Your task to perform on an android device: Who is the president of the United States? Image 0: 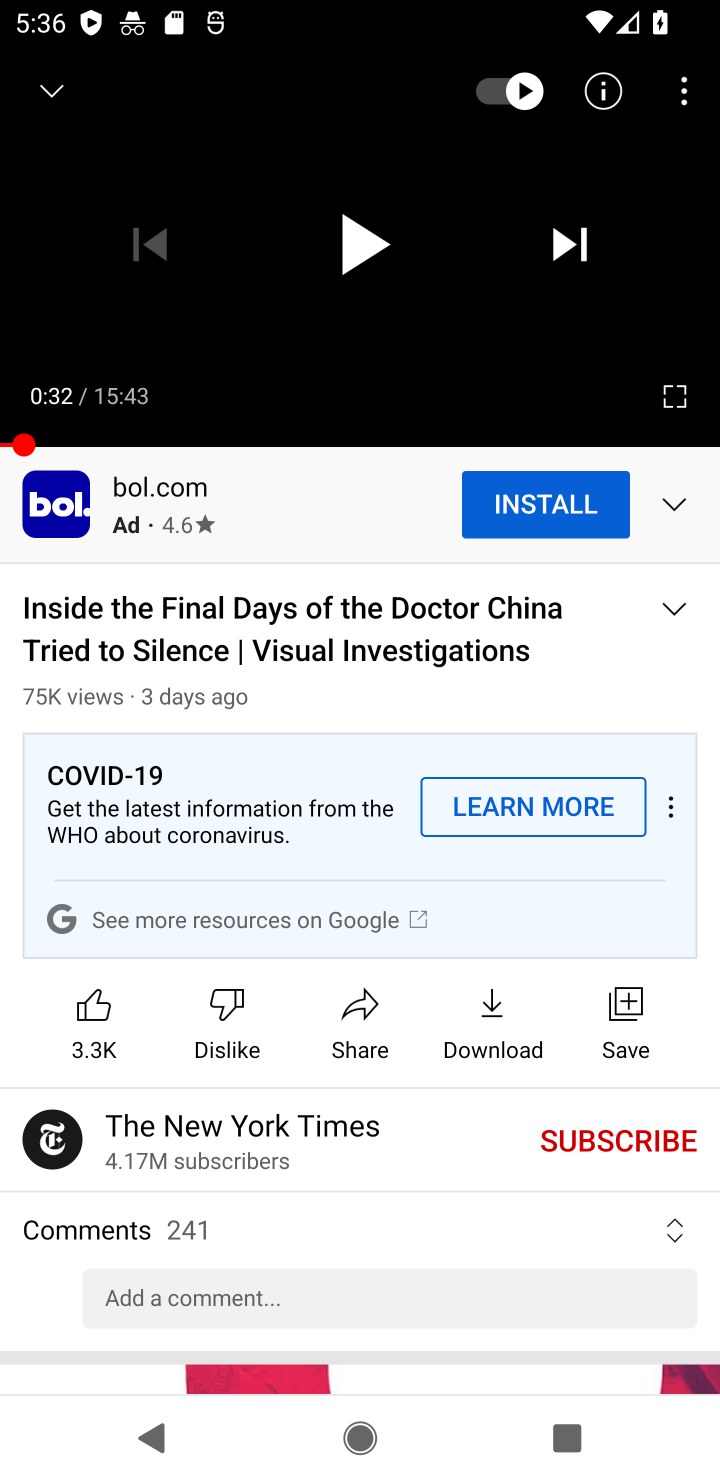
Step 0: press home button
Your task to perform on an android device: Who is the president of the United States? Image 1: 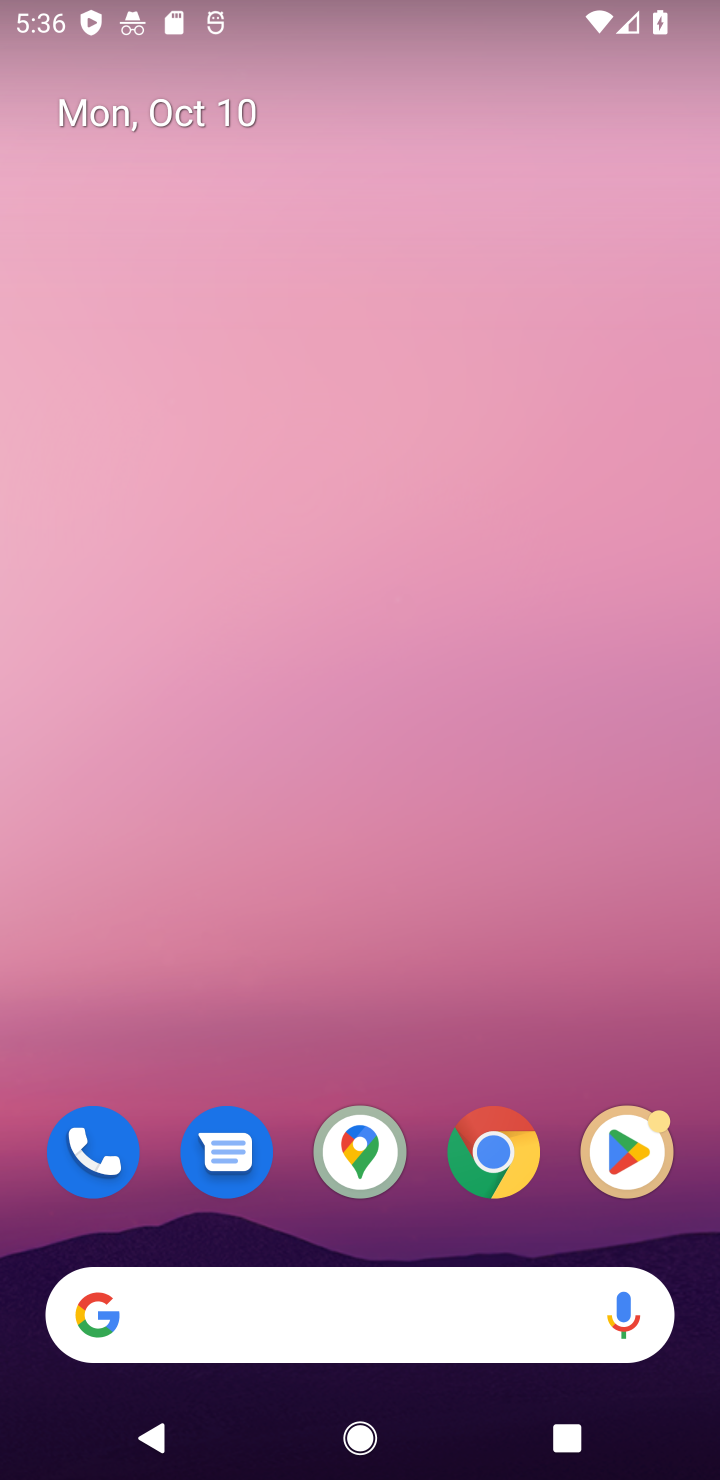
Step 1: click (496, 1146)
Your task to perform on an android device: Who is the president of the United States? Image 2: 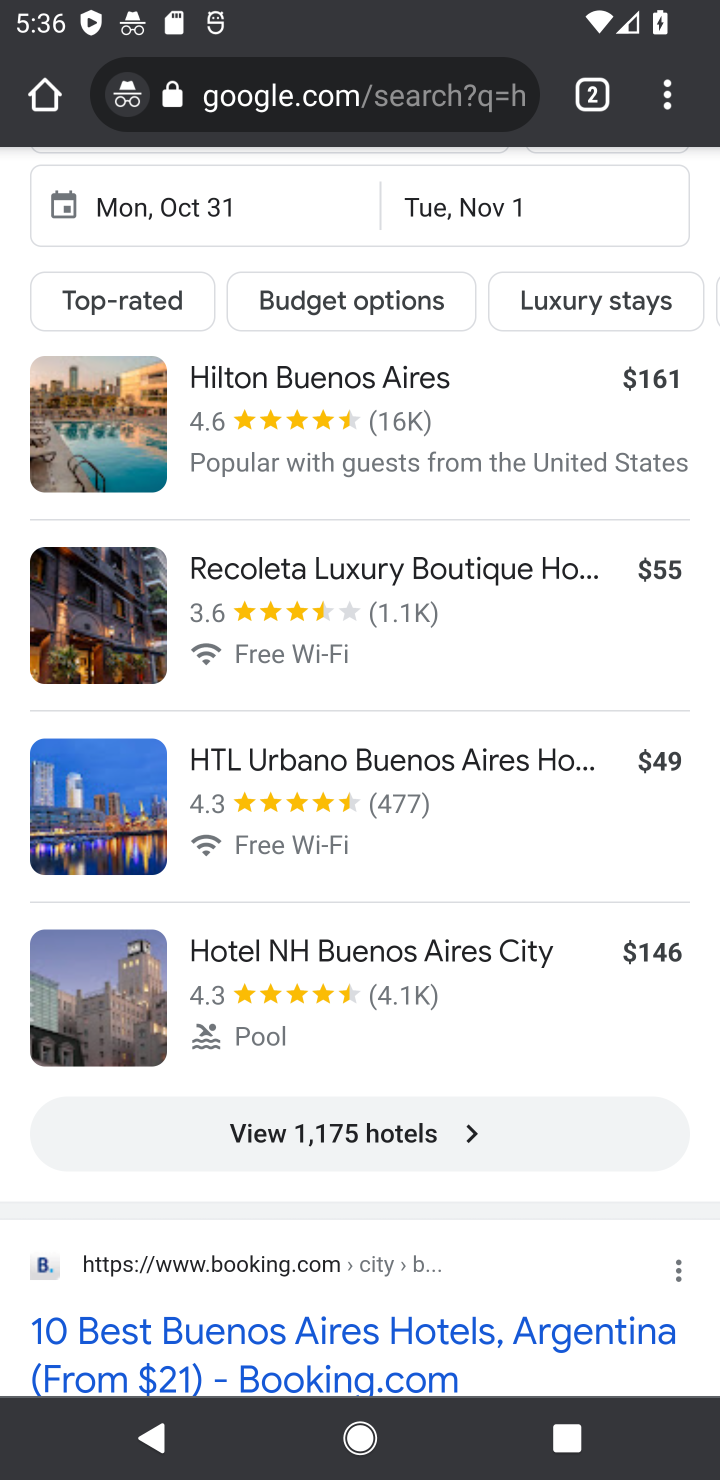
Step 2: click (390, 111)
Your task to perform on an android device: Who is the president of the United States? Image 3: 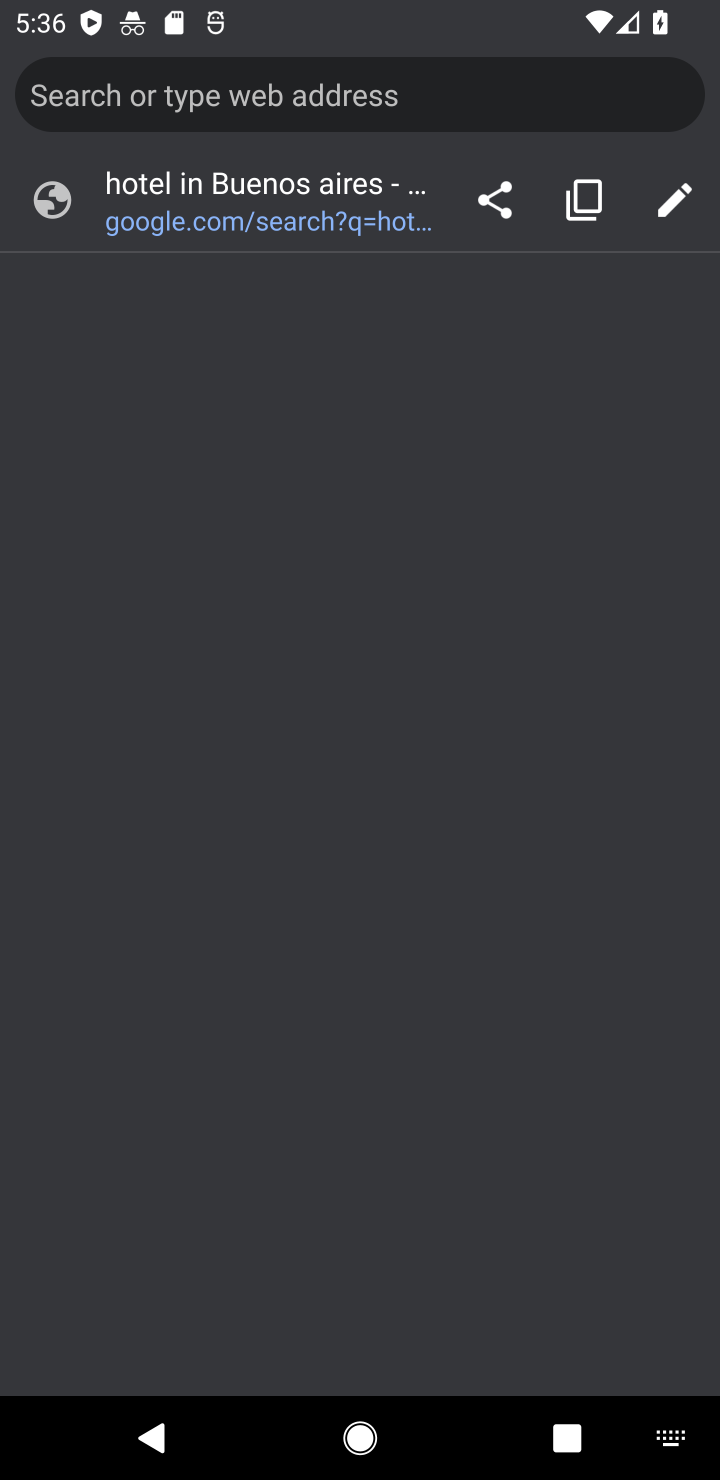
Step 3: type "Who is the president of the United States?"
Your task to perform on an android device: Who is the president of the United States? Image 4: 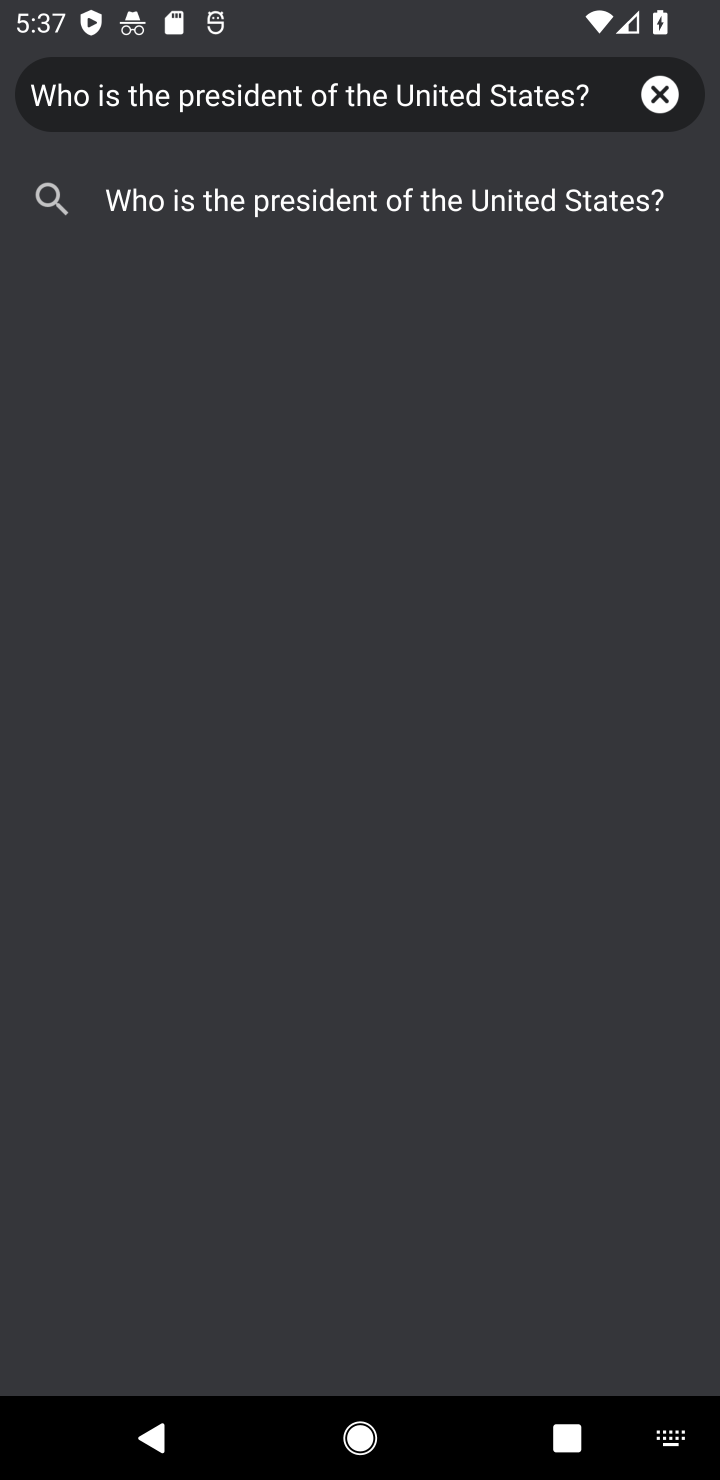
Step 4: click (407, 208)
Your task to perform on an android device: Who is the president of the United States? Image 5: 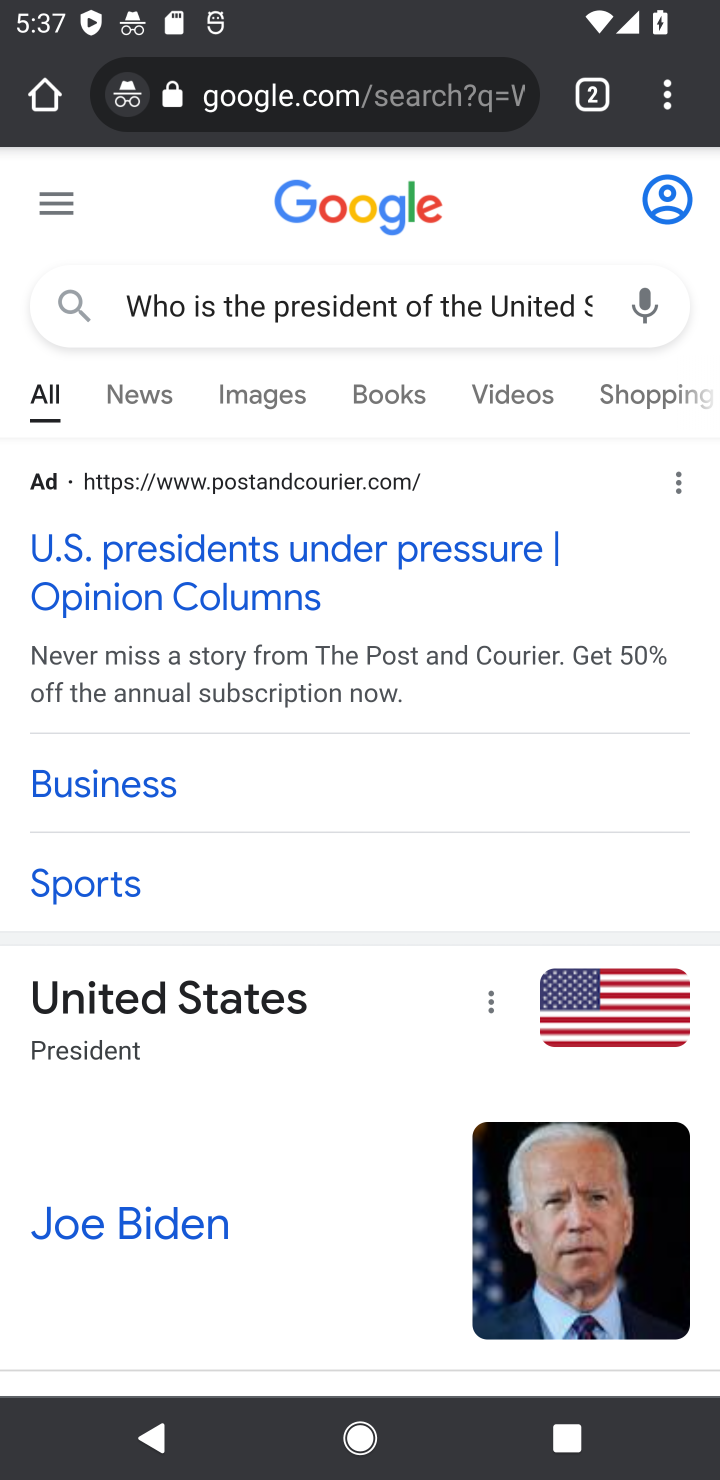
Step 5: drag from (290, 1033) to (409, 657)
Your task to perform on an android device: Who is the president of the United States? Image 6: 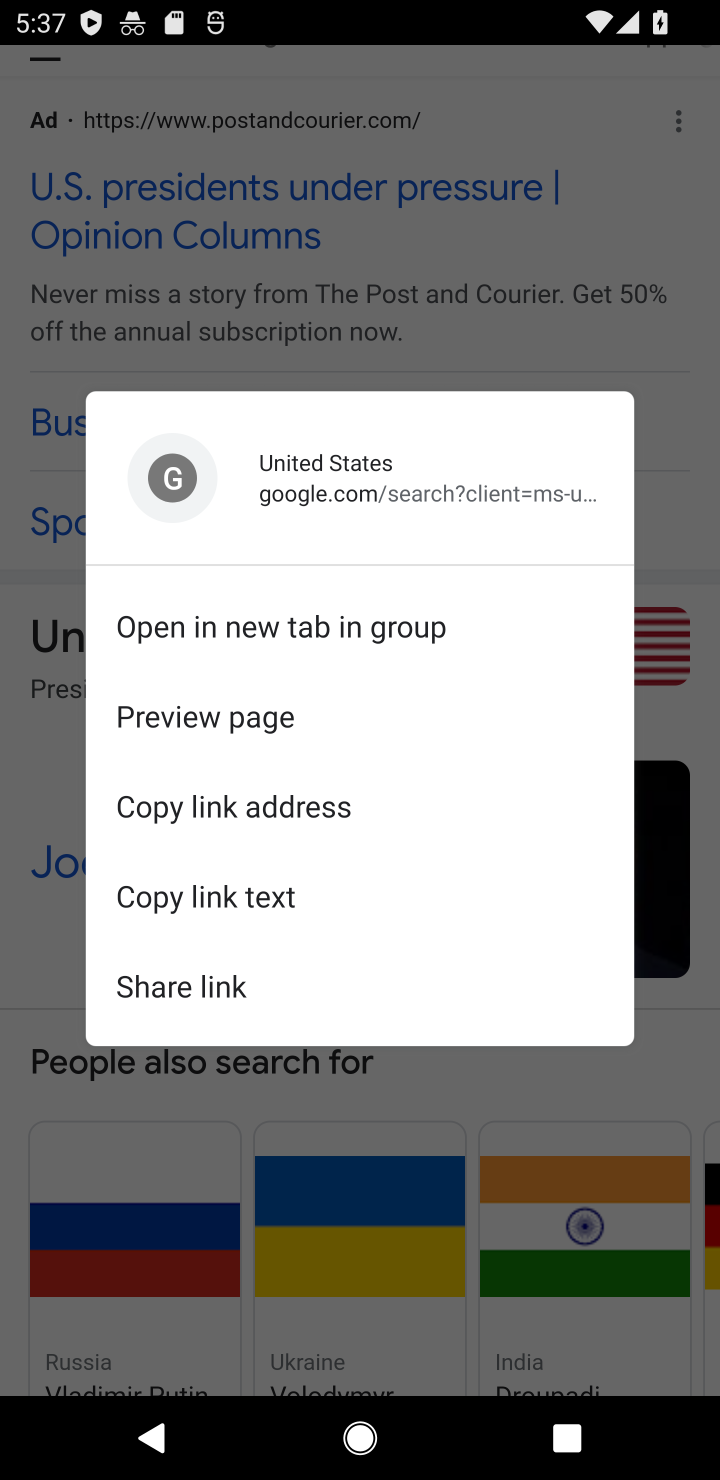
Step 6: click (682, 351)
Your task to perform on an android device: Who is the president of the United States? Image 7: 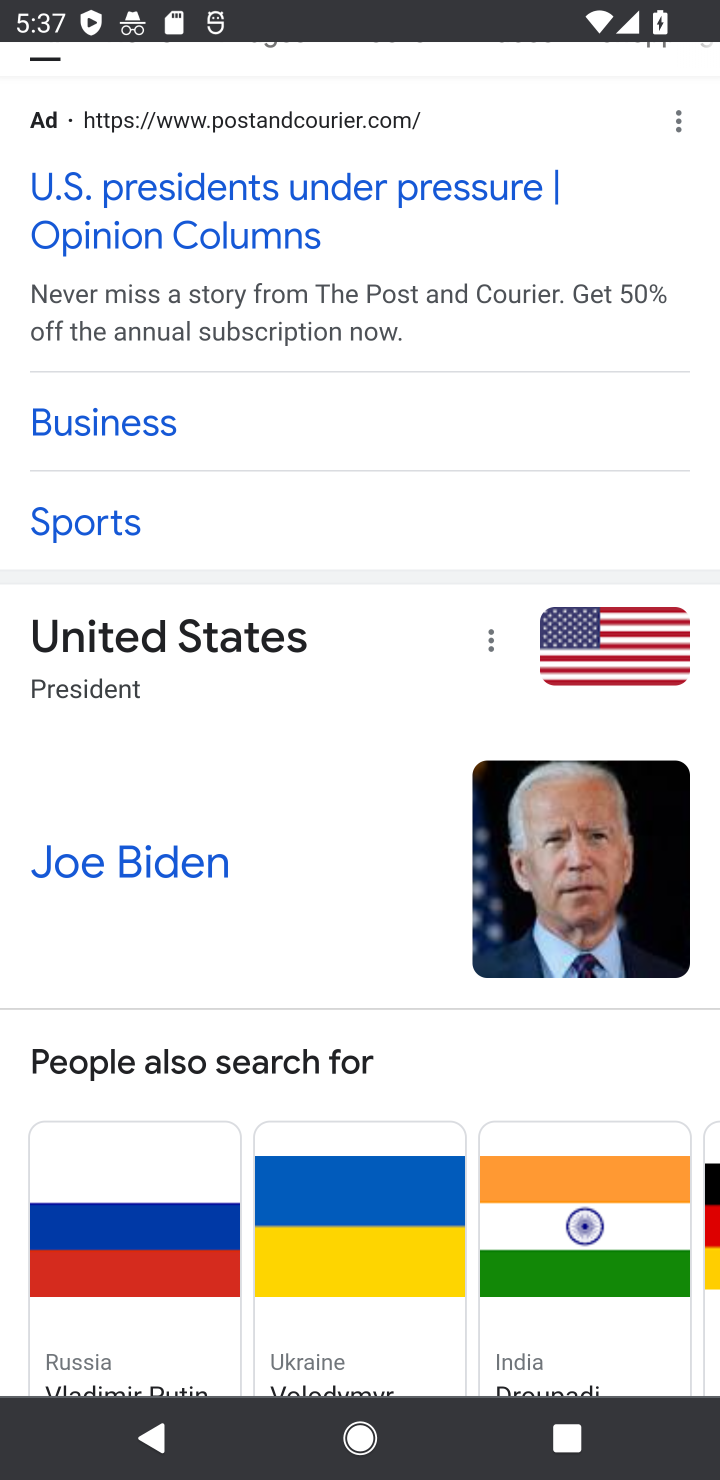
Step 7: task complete